Your task to perform on an android device: Search for seafood restaurants on Google Maps Image 0: 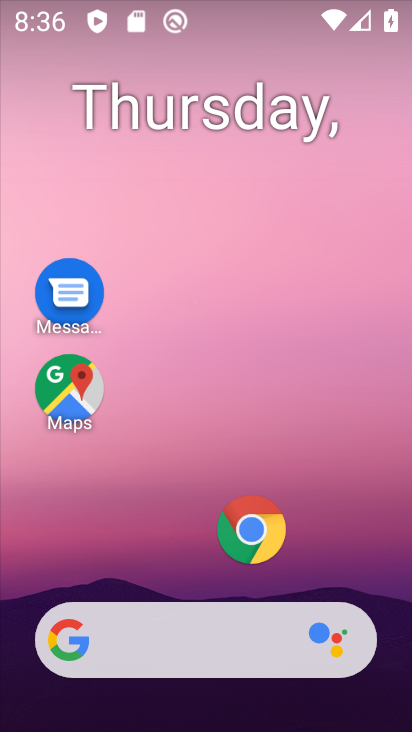
Step 0: click (71, 383)
Your task to perform on an android device: Search for seafood restaurants on Google Maps Image 1: 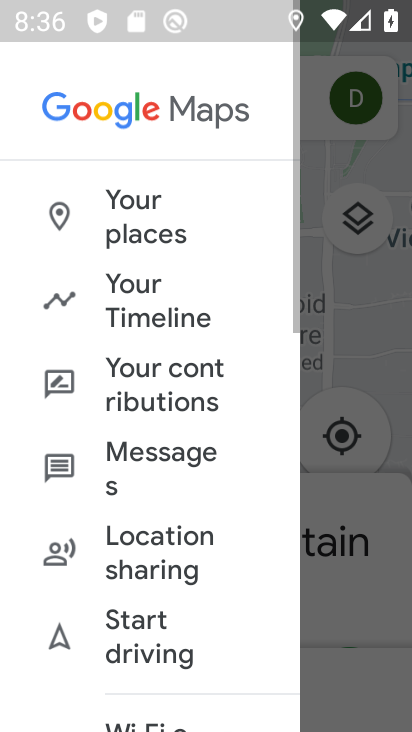
Step 1: click (357, 158)
Your task to perform on an android device: Search for seafood restaurants on Google Maps Image 2: 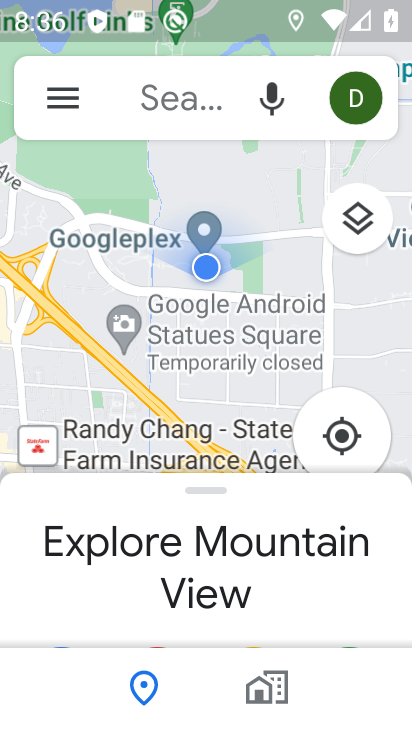
Step 2: click (200, 100)
Your task to perform on an android device: Search for seafood restaurants on Google Maps Image 3: 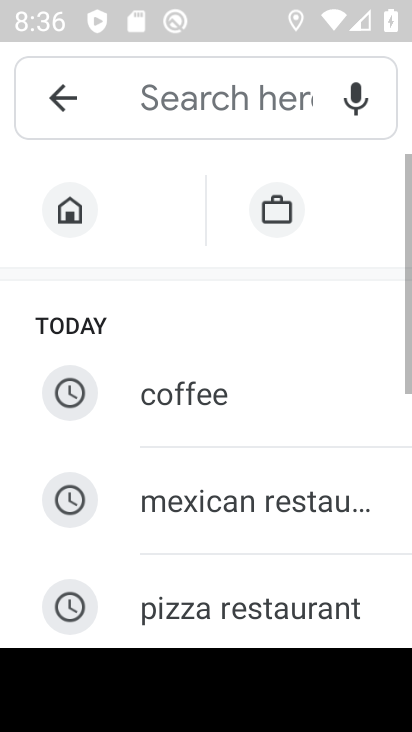
Step 3: drag from (244, 568) to (303, 117)
Your task to perform on an android device: Search for seafood restaurants on Google Maps Image 4: 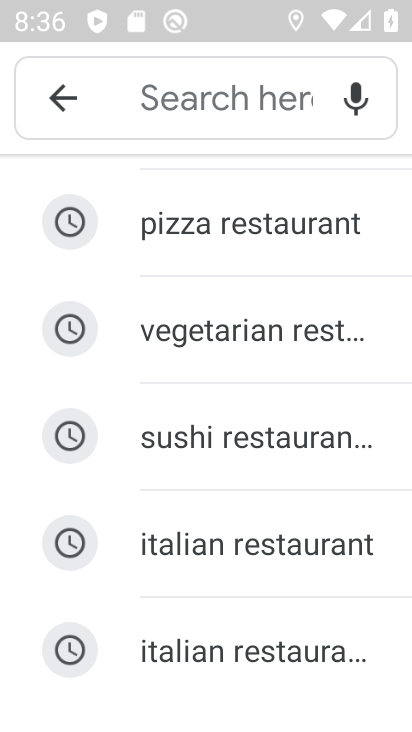
Step 4: drag from (164, 627) to (222, 302)
Your task to perform on an android device: Search for seafood restaurants on Google Maps Image 5: 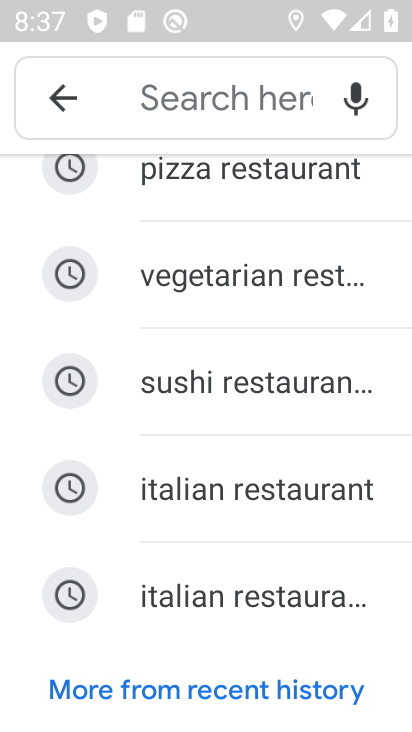
Step 5: click (184, 72)
Your task to perform on an android device: Search for seafood restaurants on Google Maps Image 6: 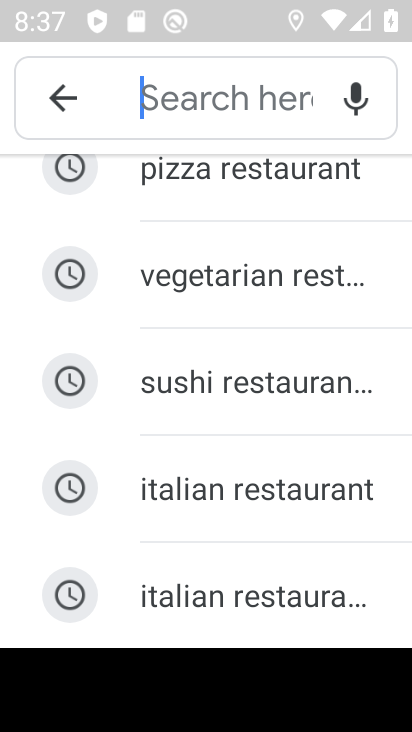
Step 6: type "seafood restaurant"
Your task to perform on an android device: Search for seafood restaurants on Google Maps Image 7: 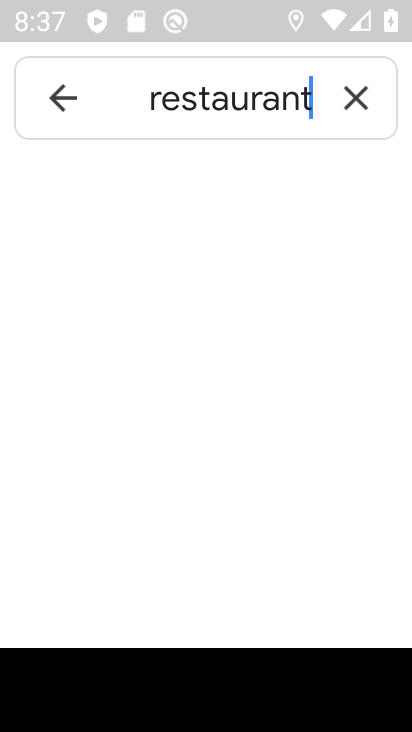
Step 7: type ""
Your task to perform on an android device: Search for seafood restaurants on Google Maps Image 8: 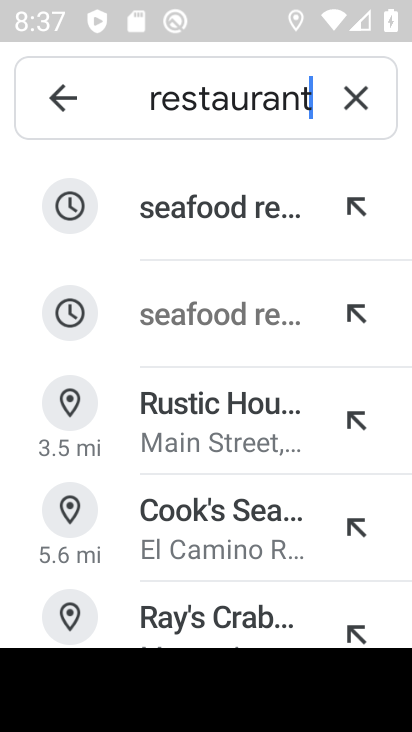
Step 8: click (148, 192)
Your task to perform on an android device: Search for seafood restaurants on Google Maps Image 9: 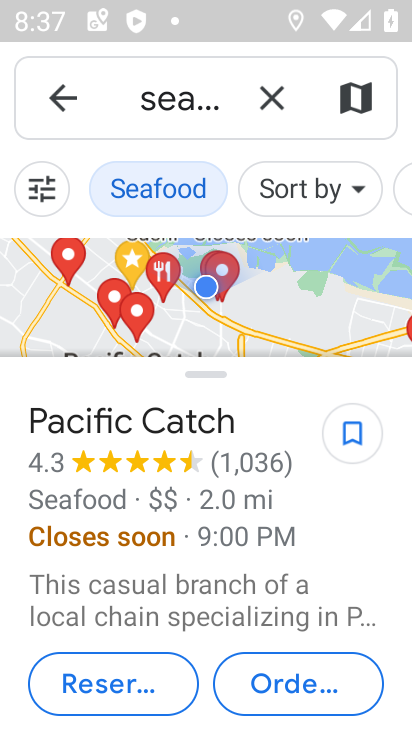
Step 9: task complete